Your task to perform on an android device: Clear the cart on costco.com. Add "alienware area 51" to the cart on costco.com Image 0: 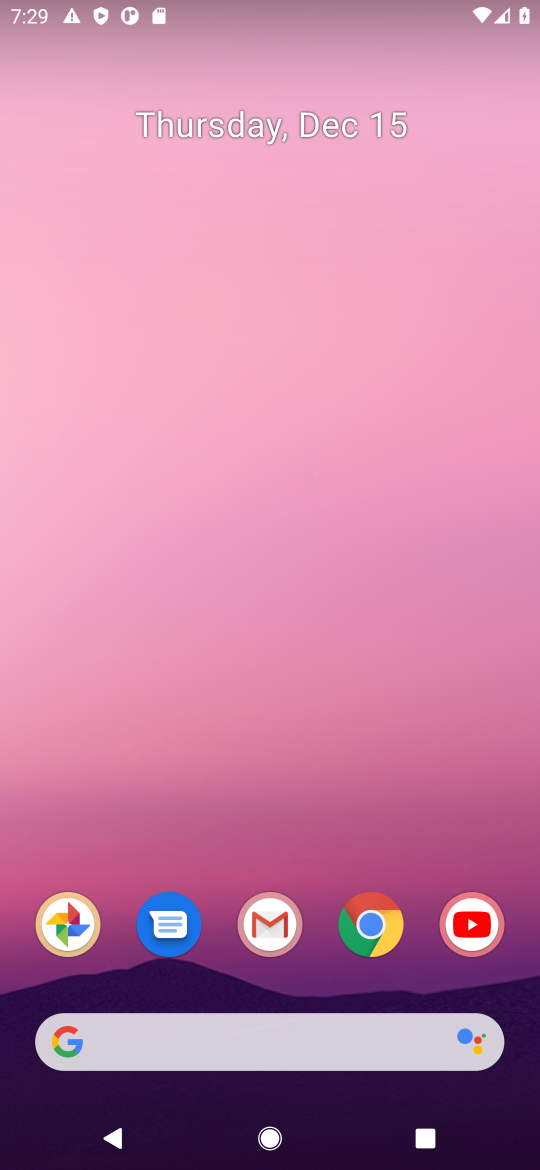
Step 0: click (395, 917)
Your task to perform on an android device: Clear the cart on costco.com. Add "alienware area 51" to the cart on costco.com Image 1: 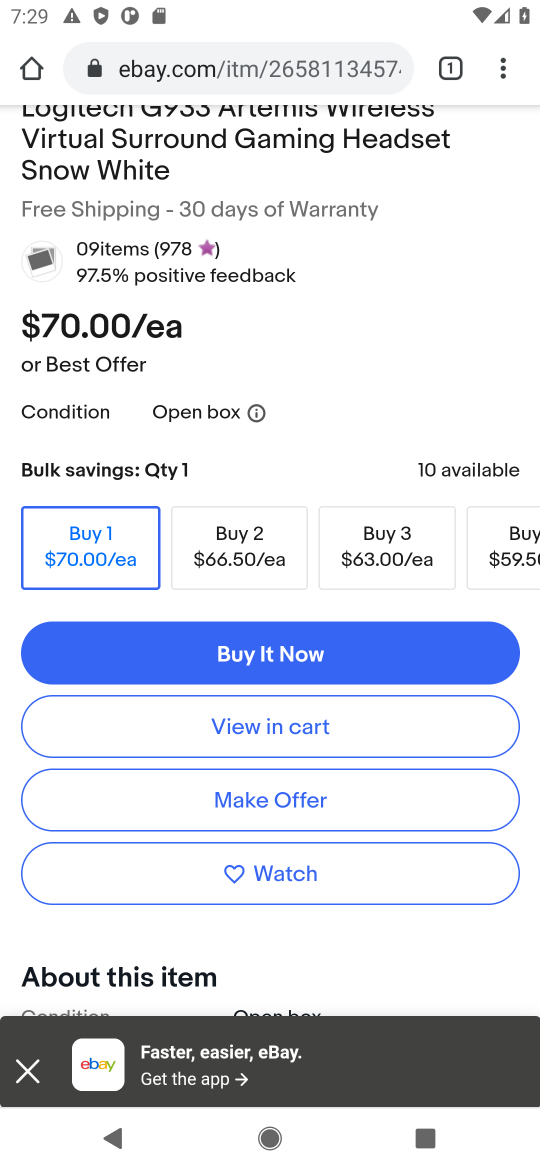
Step 1: click (255, 54)
Your task to perform on an android device: Clear the cart on costco.com. Add "alienware area 51" to the cart on costco.com Image 2: 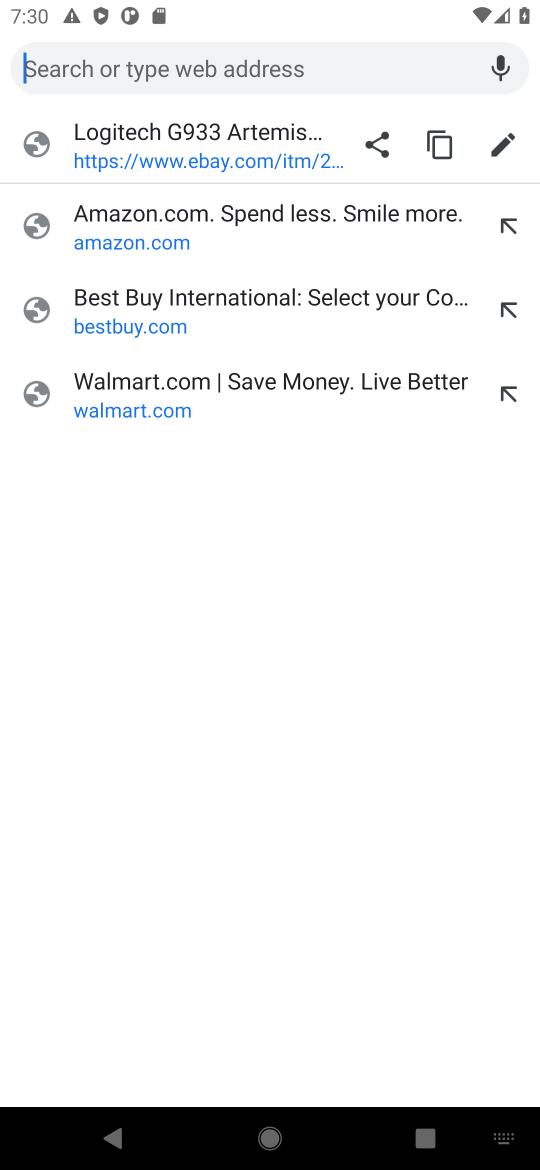
Step 2: type "costco"
Your task to perform on an android device: Clear the cart on costco.com. Add "alienware area 51" to the cart on costco.com Image 3: 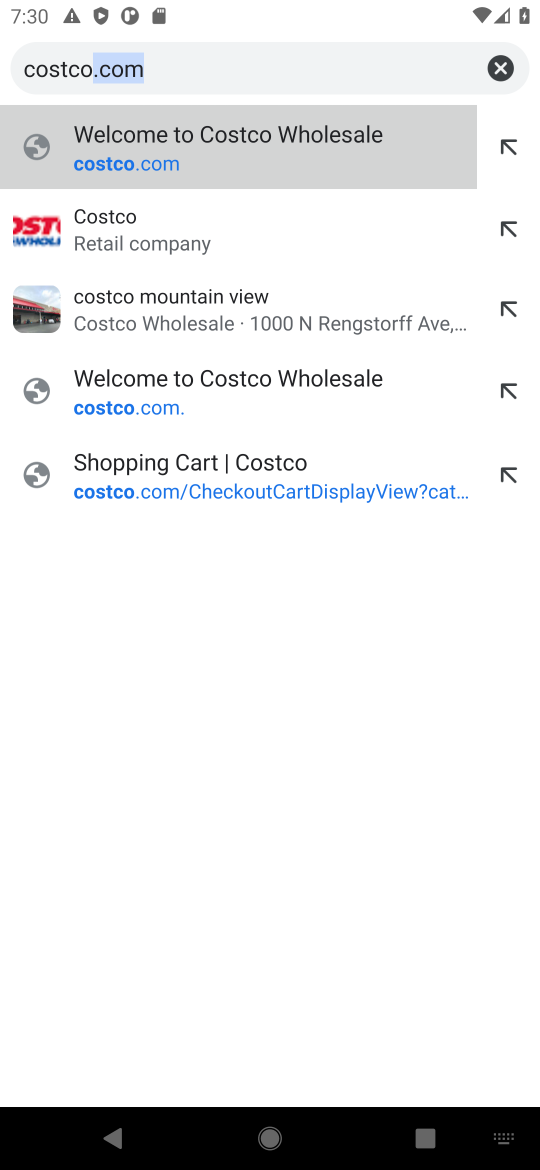
Step 3: click (75, 207)
Your task to perform on an android device: Clear the cart on costco.com. Add "alienware area 51" to the cart on costco.com Image 4: 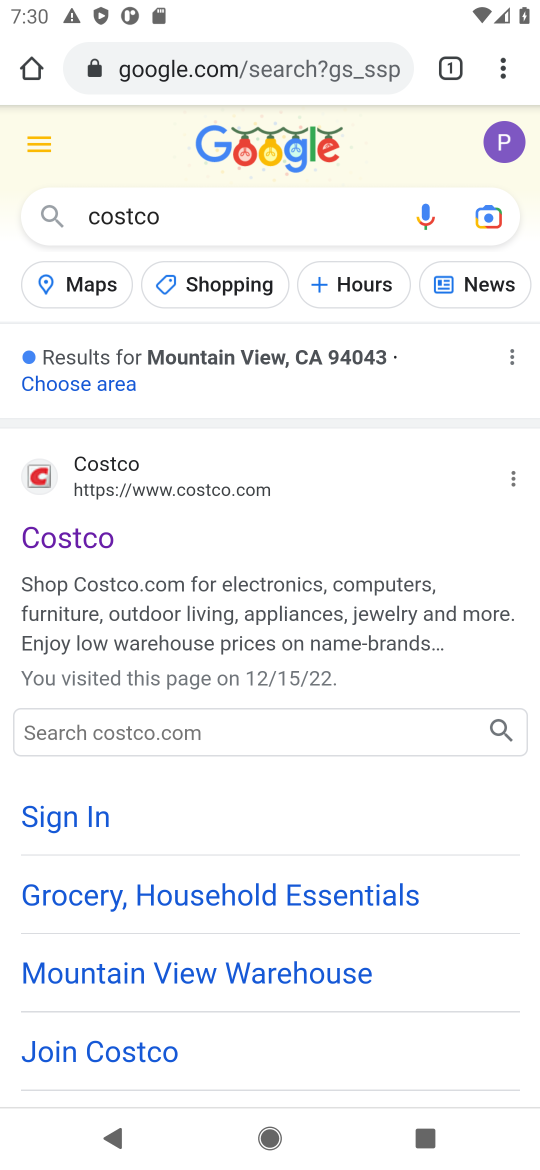
Step 4: click (80, 528)
Your task to perform on an android device: Clear the cart on costco.com. Add "alienware area 51" to the cart on costco.com Image 5: 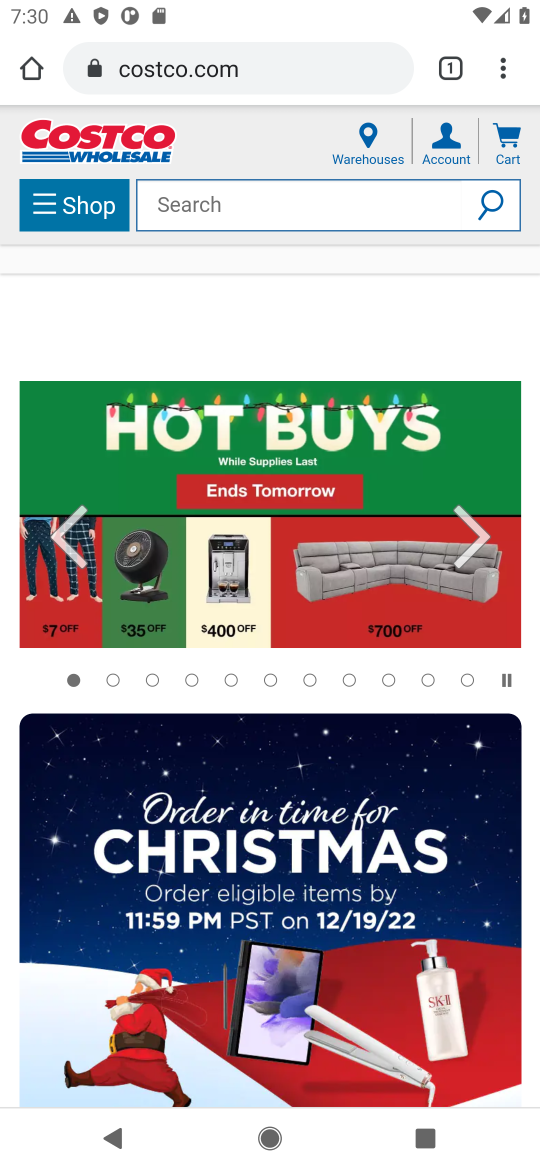
Step 5: click (265, 196)
Your task to perform on an android device: Clear the cart on costco.com. Add "alienware area 51" to the cart on costco.com Image 6: 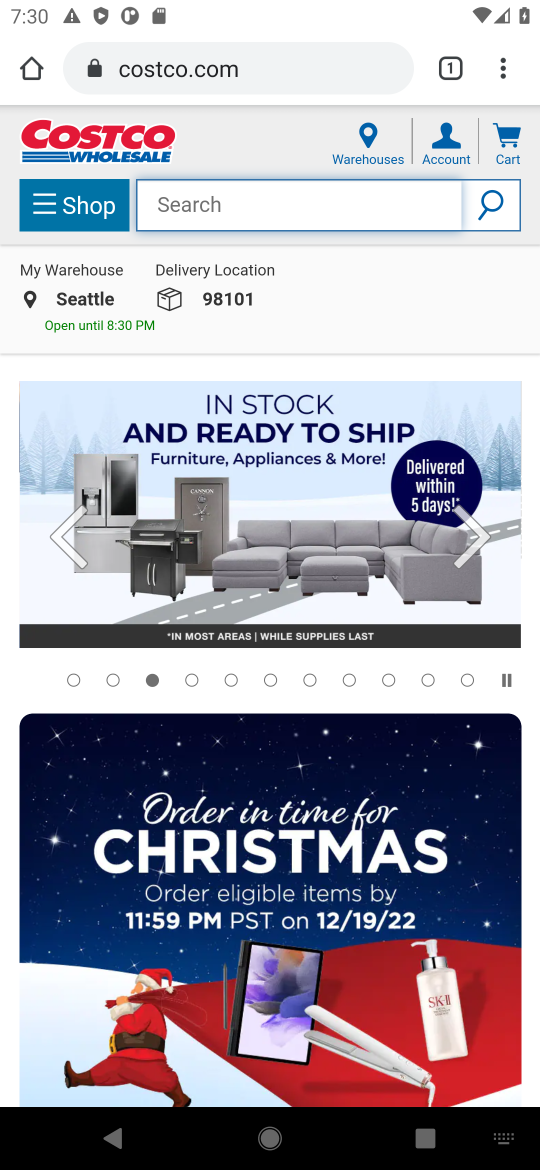
Step 6: type "alienware area 51"
Your task to perform on an android device: Clear the cart on costco.com. Add "alienware area 51" to the cart on costco.com Image 7: 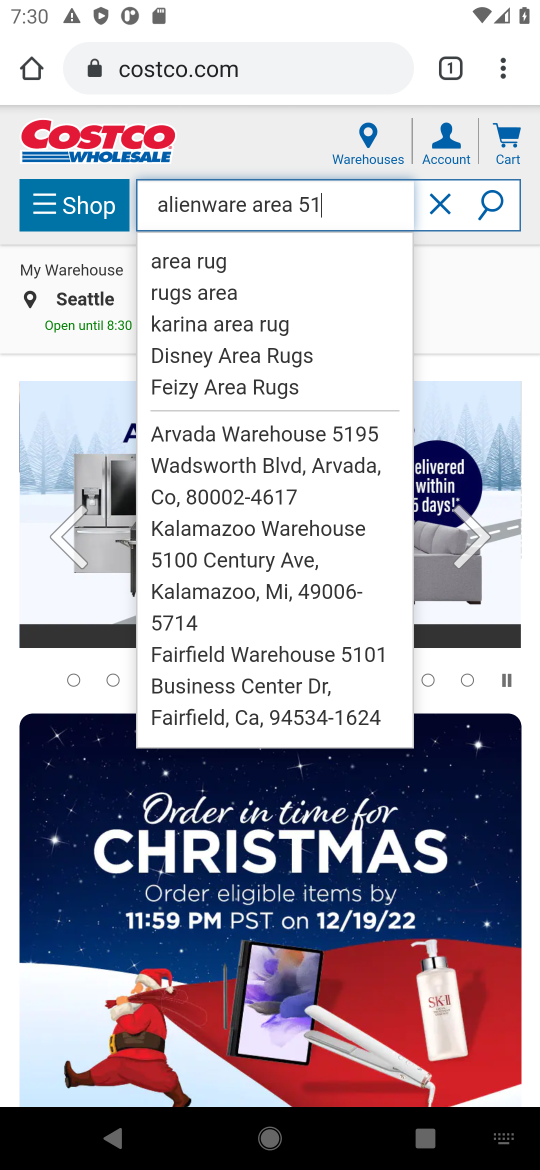
Step 7: click (490, 209)
Your task to perform on an android device: Clear the cart on costco.com. Add "alienware area 51" to the cart on costco.com Image 8: 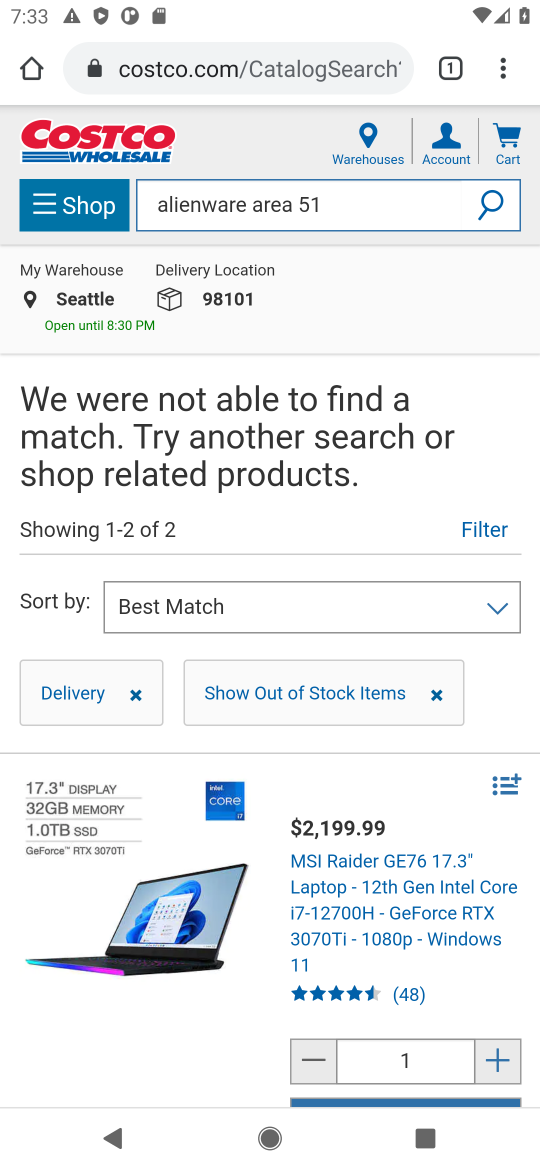
Step 8: task complete